Your task to perform on an android device: Open calendar and show me the fourth week of next month Image 0: 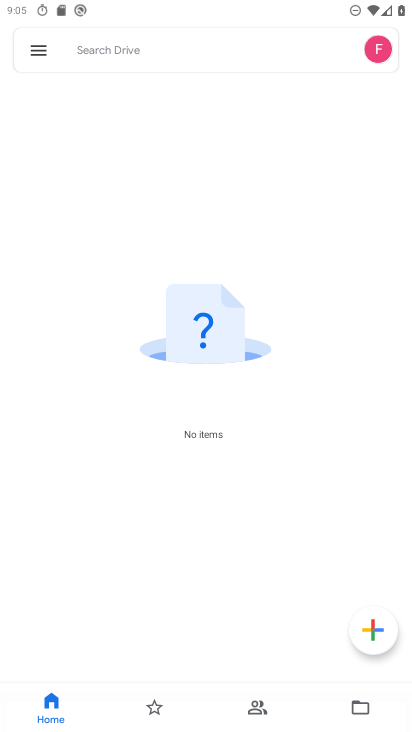
Step 0: press home button
Your task to perform on an android device: Open calendar and show me the fourth week of next month Image 1: 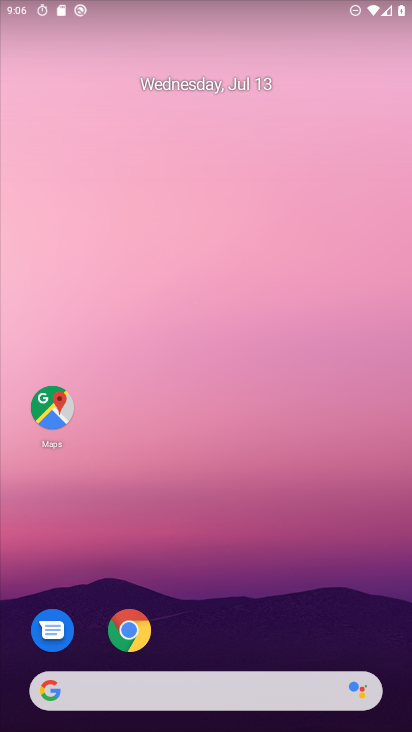
Step 1: drag from (388, 654) to (233, 4)
Your task to perform on an android device: Open calendar and show me the fourth week of next month Image 2: 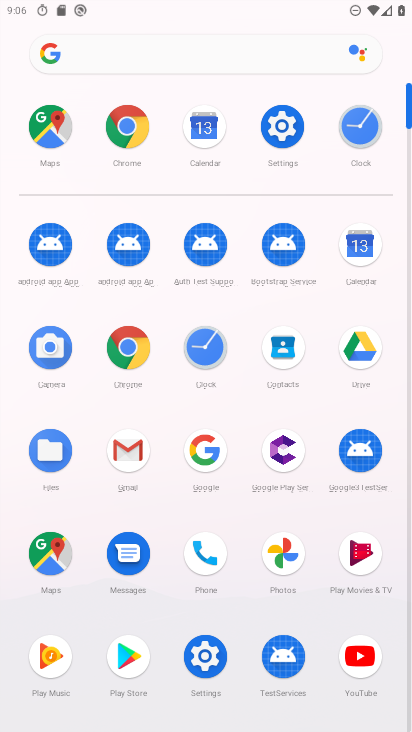
Step 2: click (359, 264)
Your task to perform on an android device: Open calendar and show me the fourth week of next month Image 3: 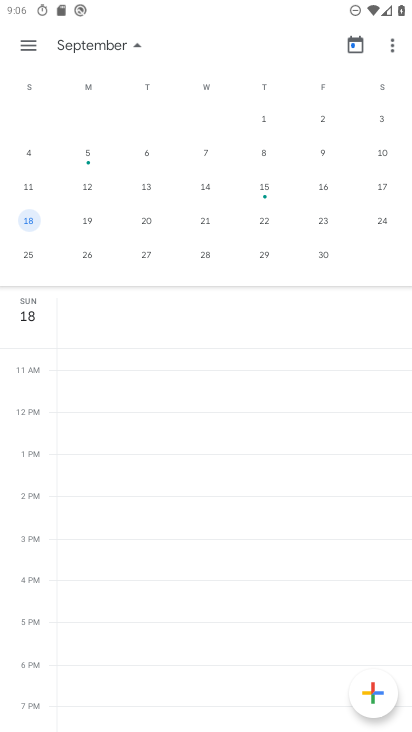
Step 3: drag from (374, 203) to (9, 174)
Your task to perform on an android device: Open calendar and show me the fourth week of next month Image 4: 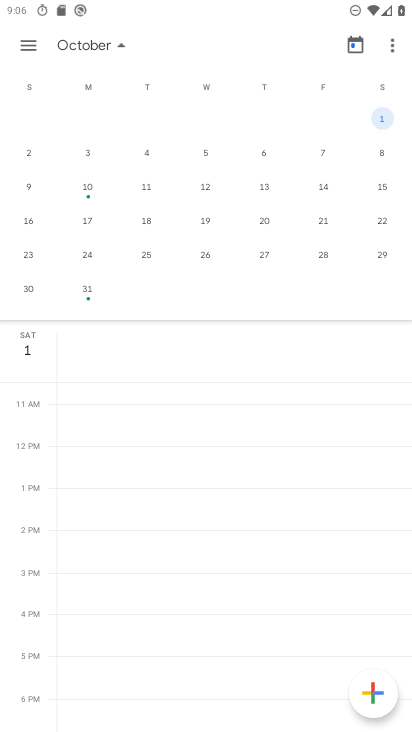
Step 4: click (30, 256)
Your task to perform on an android device: Open calendar and show me the fourth week of next month Image 5: 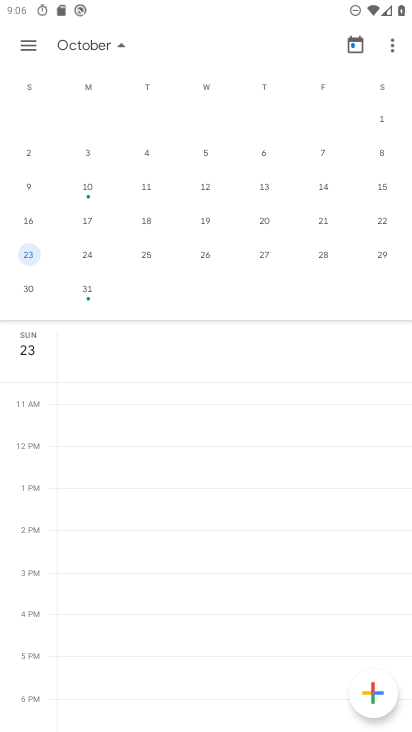
Step 5: task complete